Your task to perform on an android device: Go to eBay Image 0: 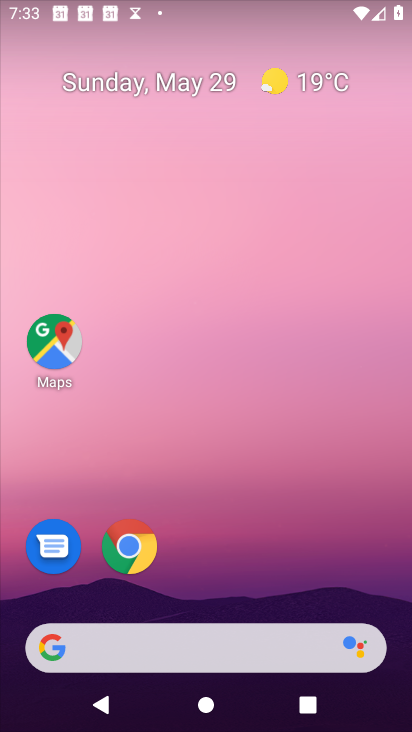
Step 0: click (136, 550)
Your task to perform on an android device: Go to eBay Image 1: 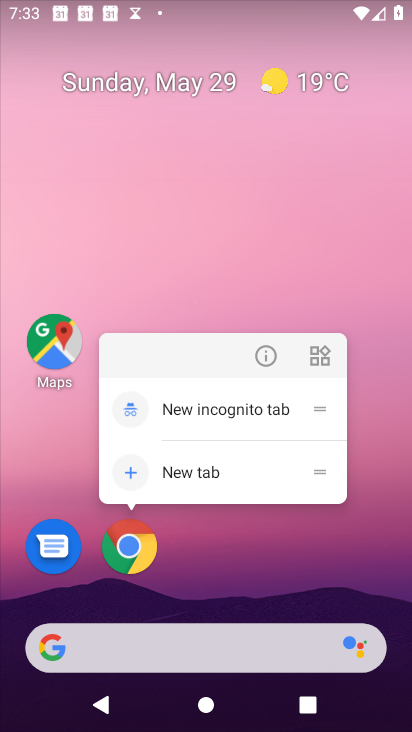
Step 1: click (130, 555)
Your task to perform on an android device: Go to eBay Image 2: 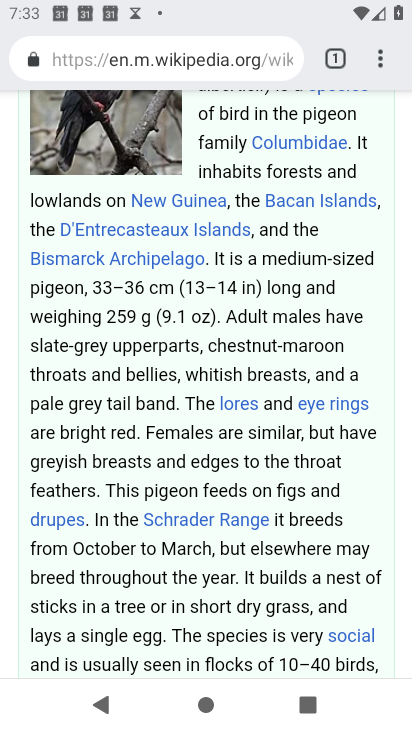
Step 2: press back button
Your task to perform on an android device: Go to eBay Image 3: 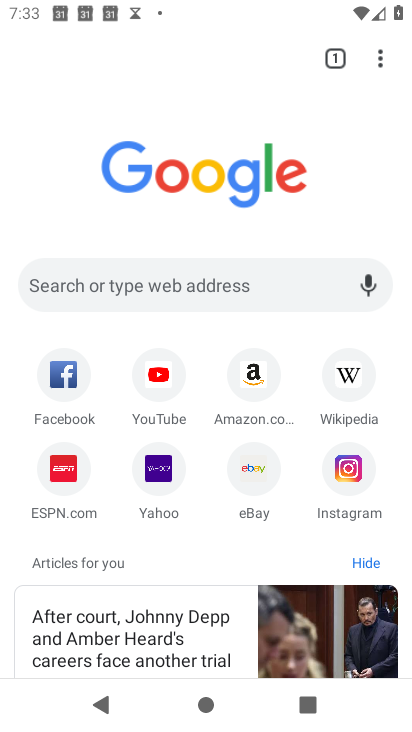
Step 3: click (258, 478)
Your task to perform on an android device: Go to eBay Image 4: 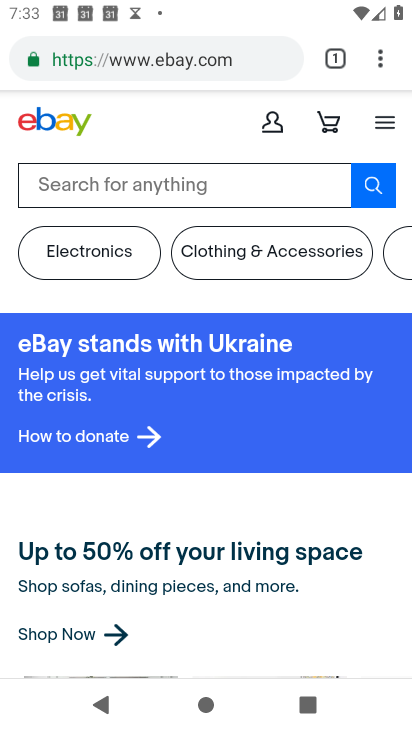
Step 4: task complete